Your task to perform on an android device: Search for a storage ottoman in the living room Image 0: 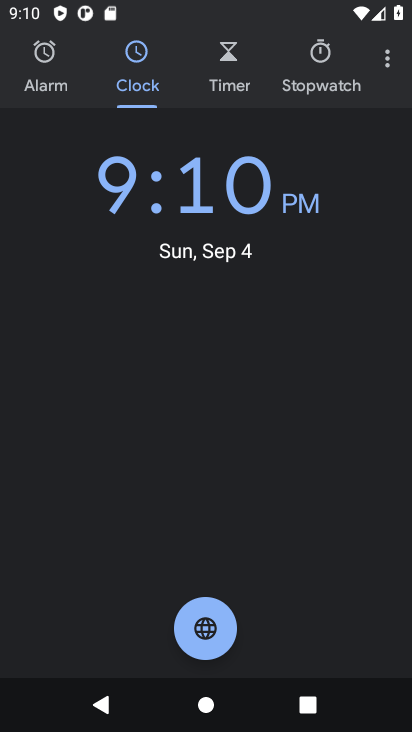
Step 0: press home button
Your task to perform on an android device: Search for a storage ottoman in the living room Image 1: 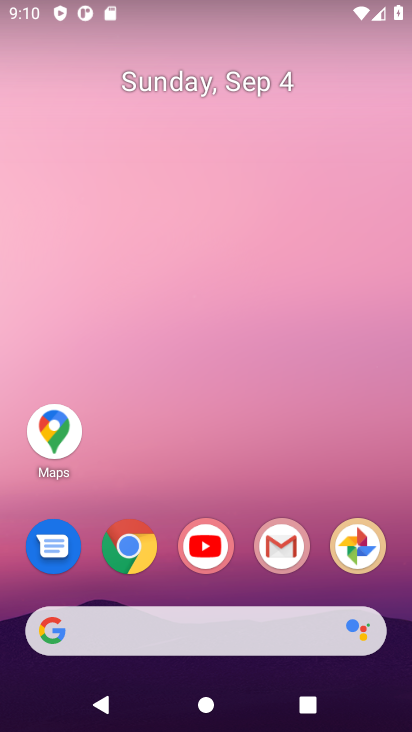
Step 1: click (130, 548)
Your task to perform on an android device: Search for a storage ottoman in the living room Image 2: 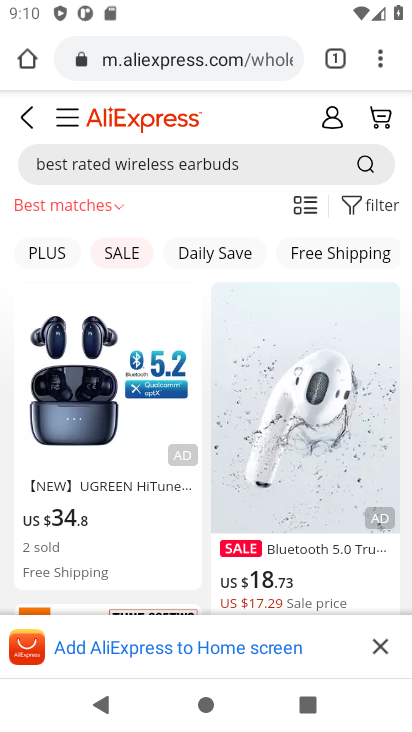
Step 2: click (200, 62)
Your task to perform on an android device: Search for a storage ottoman in the living room Image 3: 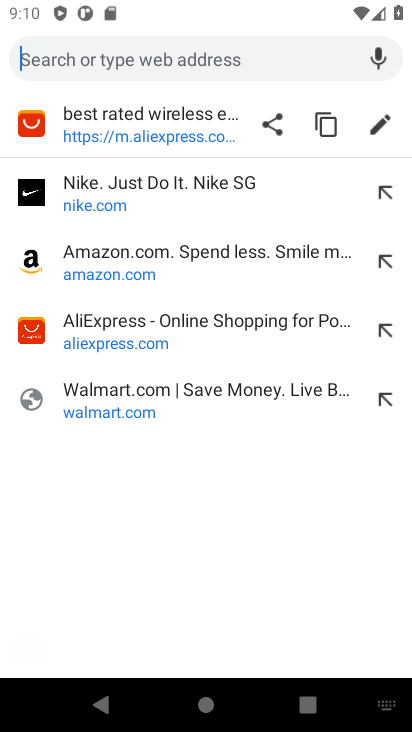
Step 3: type "storage ottoman in the living room"
Your task to perform on an android device: Search for a storage ottoman in the living room Image 4: 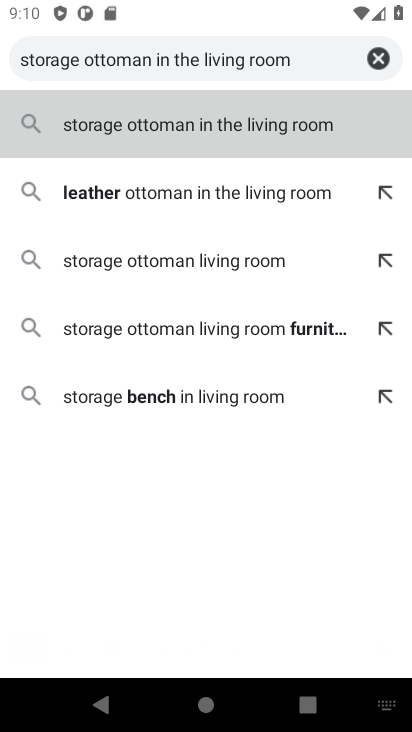
Step 4: click (104, 122)
Your task to perform on an android device: Search for a storage ottoman in the living room Image 5: 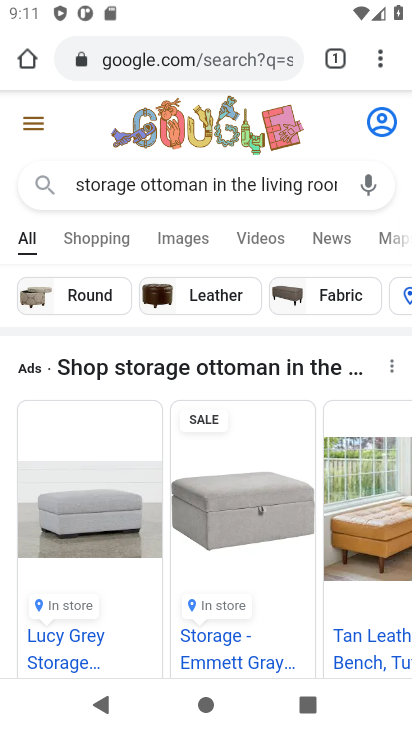
Step 5: task complete